Your task to perform on an android device: clear history in the chrome app Image 0: 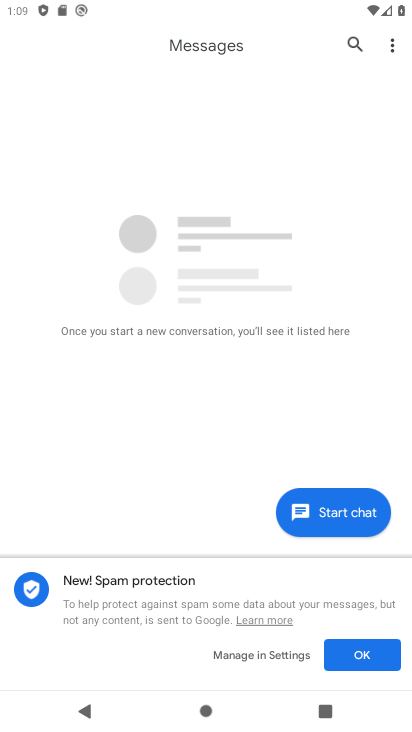
Step 0: press home button
Your task to perform on an android device: clear history in the chrome app Image 1: 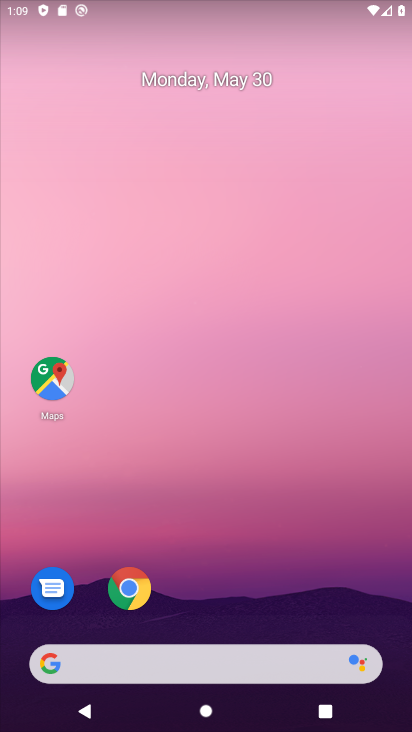
Step 1: click (129, 589)
Your task to perform on an android device: clear history in the chrome app Image 2: 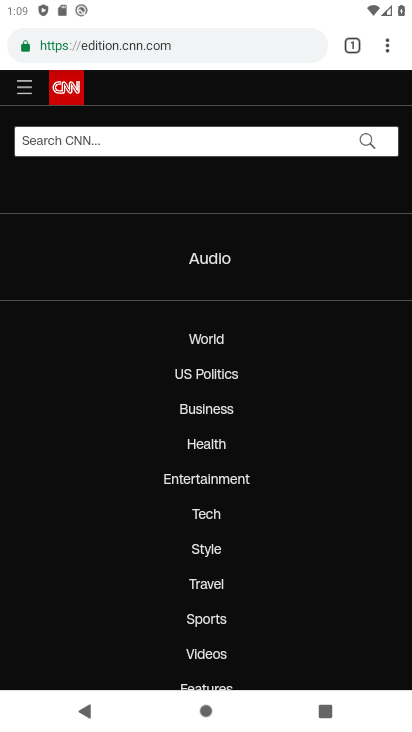
Step 2: click (387, 52)
Your task to perform on an android device: clear history in the chrome app Image 3: 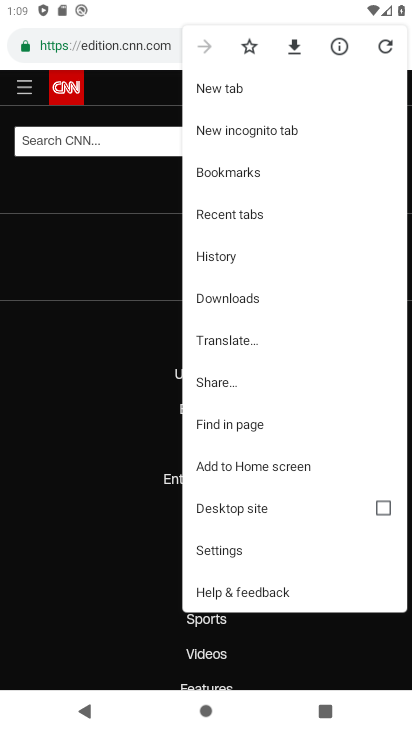
Step 3: click (226, 261)
Your task to perform on an android device: clear history in the chrome app Image 4: 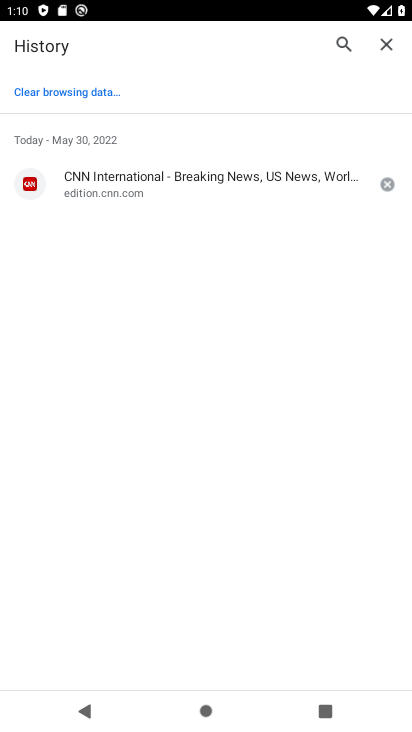
Step 4: click (61, 96)
Your task to perform on an android device: clear history in the chrome app Image 5: 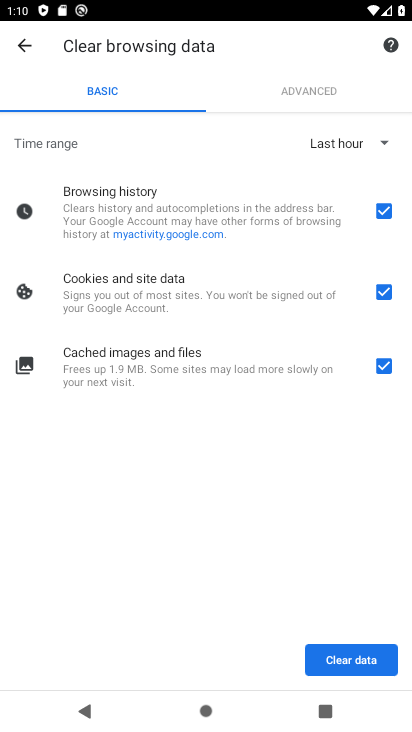
Step 5: click (381, 291)
Your task to perform on an android device: clear history in the chrome app Image 6: 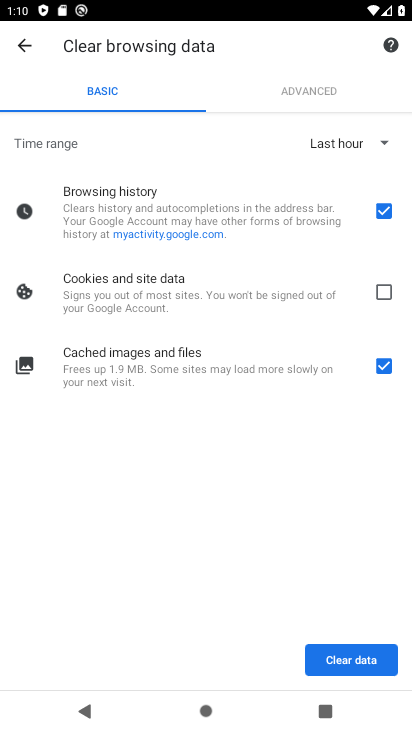
Step 6: click (384, 373)
Your task to perform on an android device: clear history in the chrome app Image 7: 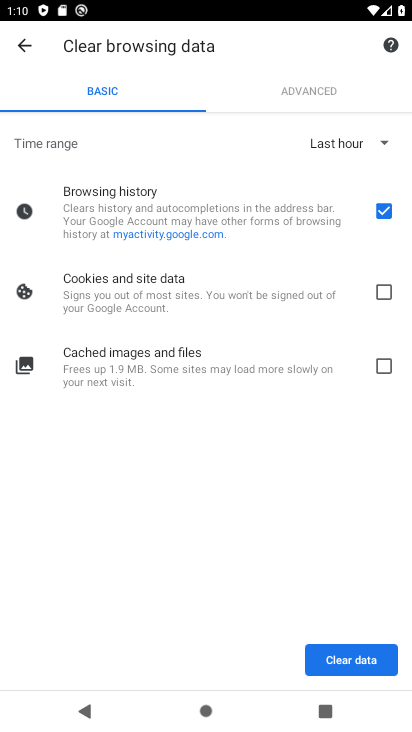
Step 7: click (343, 661)
Your task to perform on an android device: clear history in the chrome app Image 8: 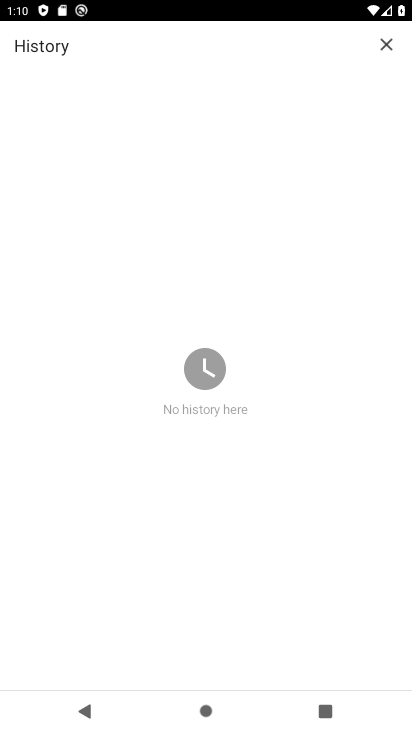
Step 8: task complete